Your task to perform on an android device: choose inbox layout in the gmail app Image 0: 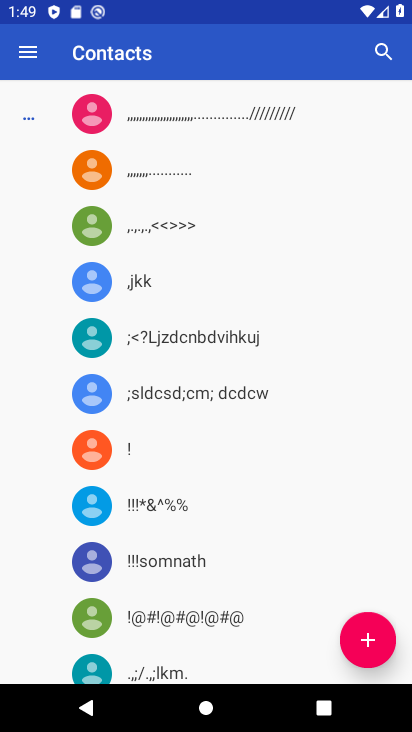
Step 0: press home button
Your task to perform on an android device: choose inbox layout in the gmail app Image 1: 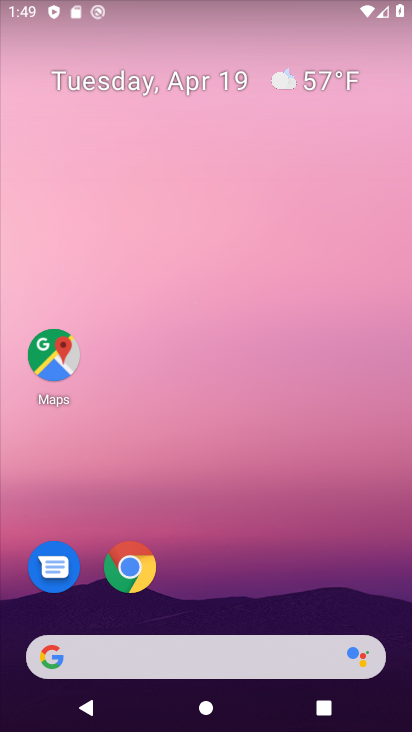
Step 1: drag from (371, 598) to (309, 92)
Your task to perform on an android device: choose inbox layout in the gmail app Image 2: 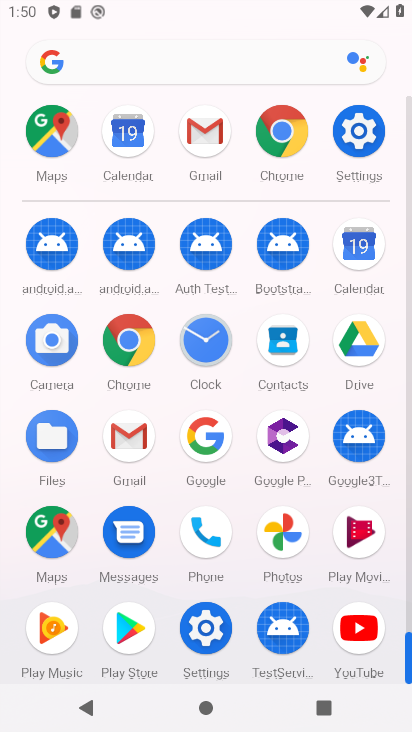
Step 2: click (127, 433)
Your task to perform on an android device: choose inbox layout in the gmail app Image 3: 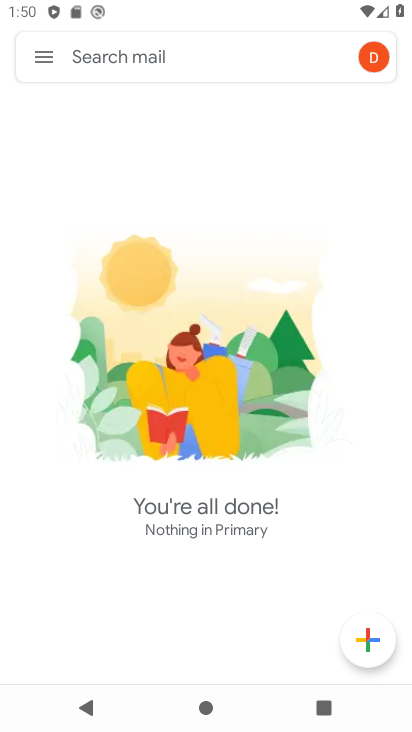
Step 3: click (42, 57)
Your task to perform on an android device: choose inbox layout in the gmail app Image 4: 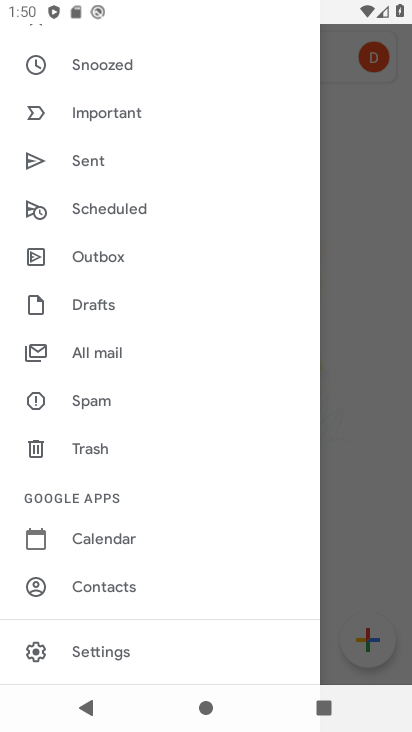
Step 4: drag from (160, 655) to (192, 351)
Your task to perform on an android device: choose inbox layout in the gmail app Image 5: 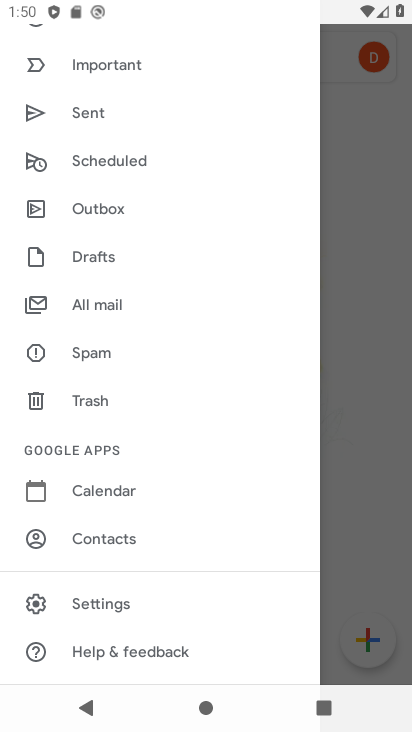
Step 5: click (87, 595)
Your task to perform on an android device: choose inbox layout in the gmail app Image 6: 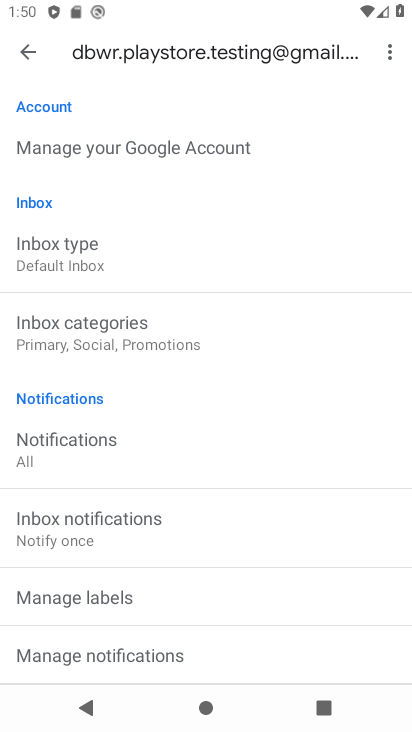
Step 6: drag from (214, 587) to (244, 455)
Your task to perform on an android device: choose inbox layout in the gmail app Image 7: 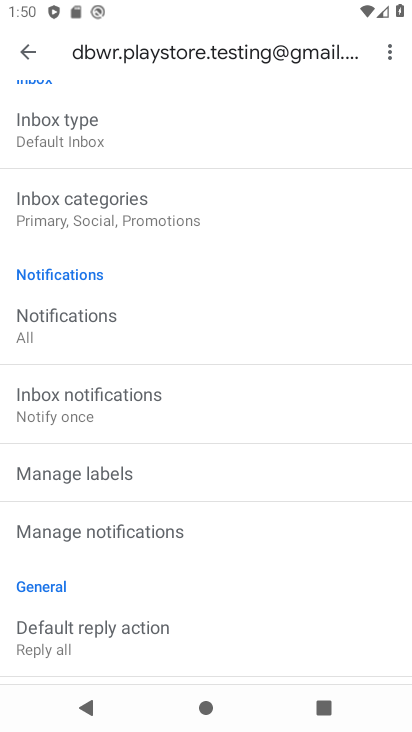
Step 7: click (56, 134)
Your task to perform on an android device: choose inbox layout in the gmail app Image 8: 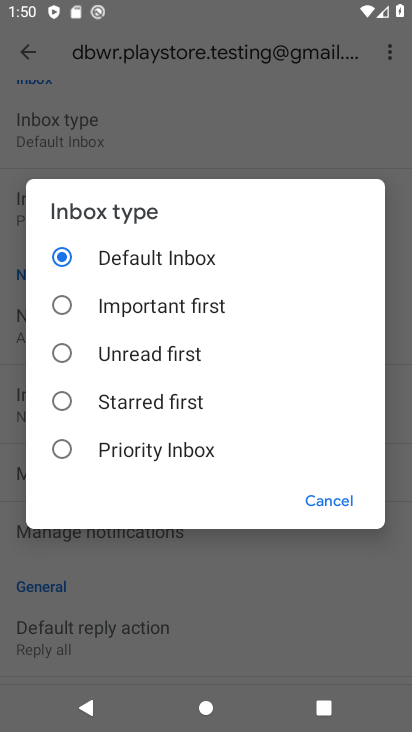
Step 8: click (55, 448)
Your task to perform on an android device: choose inbox layout in the gmail app Image 9: 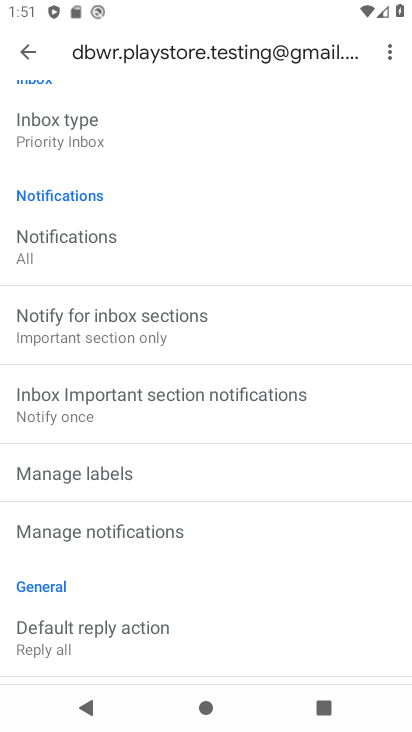
Step 9: task complete